Your task to perform on an android device: Open the map Image 0: 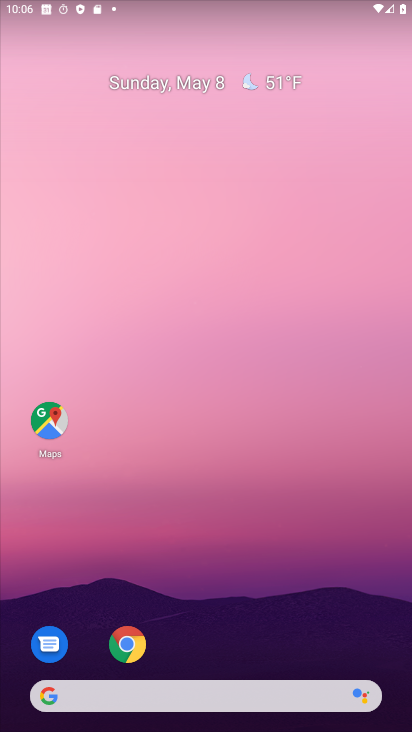
Step 0: drag from (205, 602) to (280, 140)
Your task to perform on an android device: Open the map Image 1: 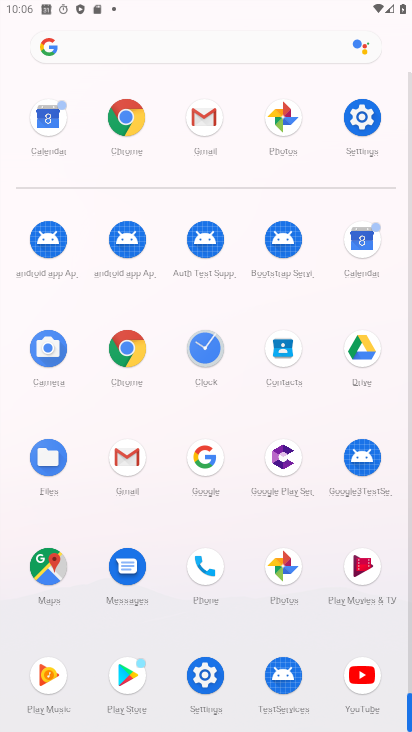
Step 1: click (41, 578)
Your task to perform on an android device: Open the map Image 2: 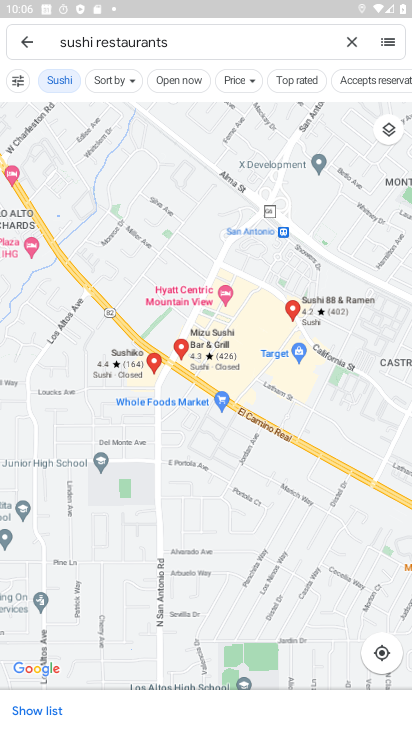
Step 2: task complete